Your task to perform on an android device: turn off priority inbox in the gmail app Image 0: 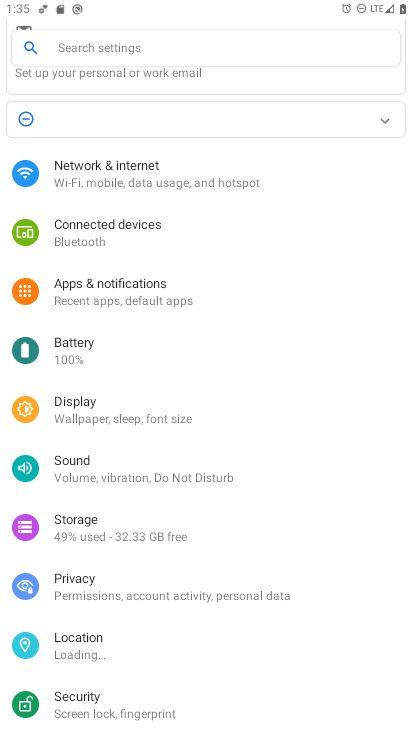
Step 0: press home button
Your task to perform on an android device: turn off priority inbox in the gmail app Image 1: 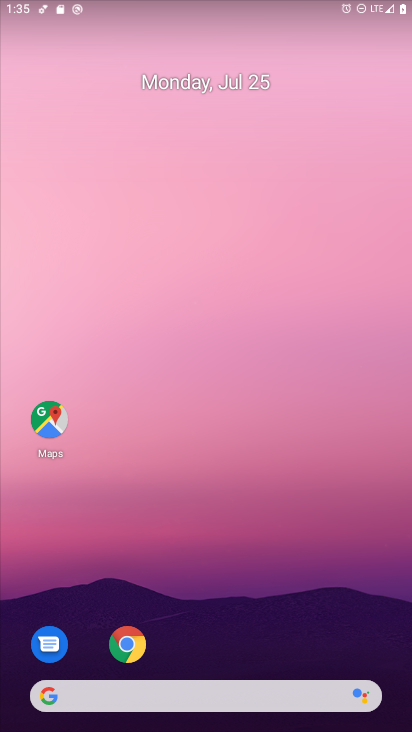
Step 1: drag from (241, 668) to (225, 10)
Your task to perform on an android device: turn off priority inbox in the gmail app Image 2: 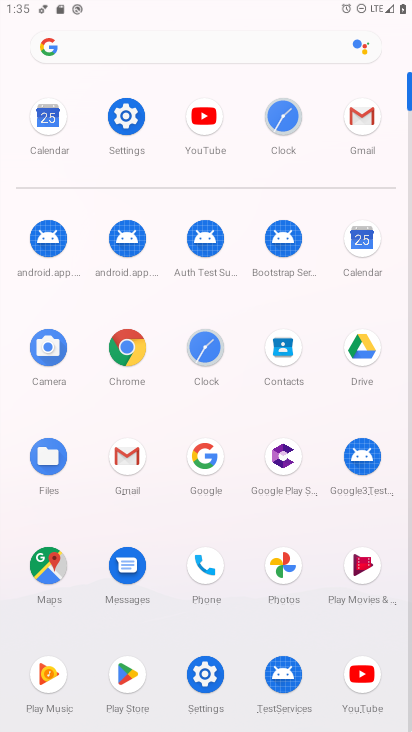
Step 2: click (122, 469)
Your task to perform on an android device: turn off priority inbox in the gmail app Image 3: 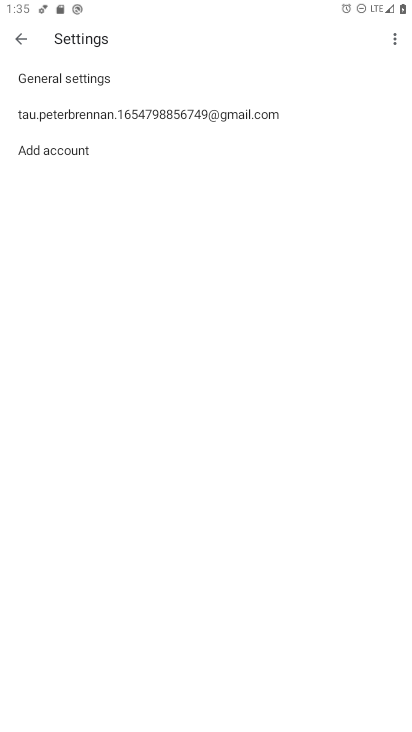
Step 3: click (49, 121)
Your task to perform on an android device: turn off priority inbox in the gmail app Image 4: 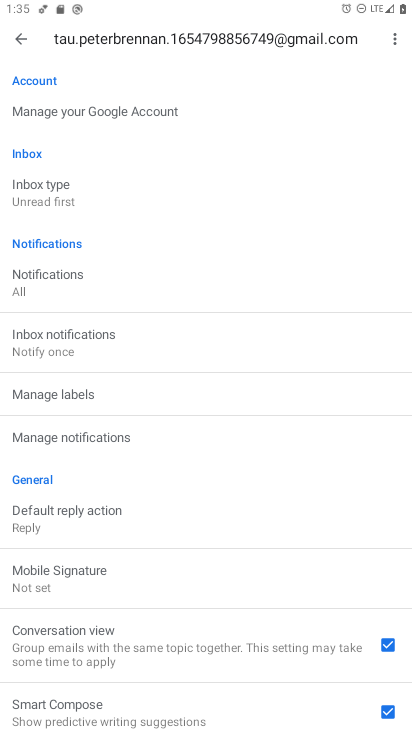
Step 4: click (37, 200)
Your task to perform on an android device: turn off priority inbox in the gmail app Image 5: 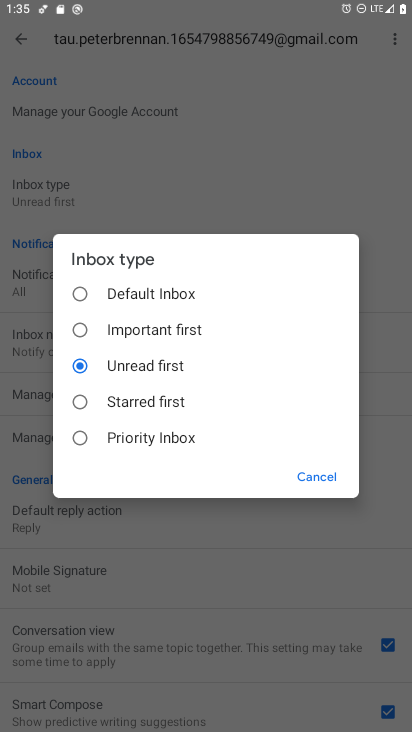
Step 5: click (116, 362)
Your task to perform on an android device: turn off priority inbox in the gmail app Image 6: 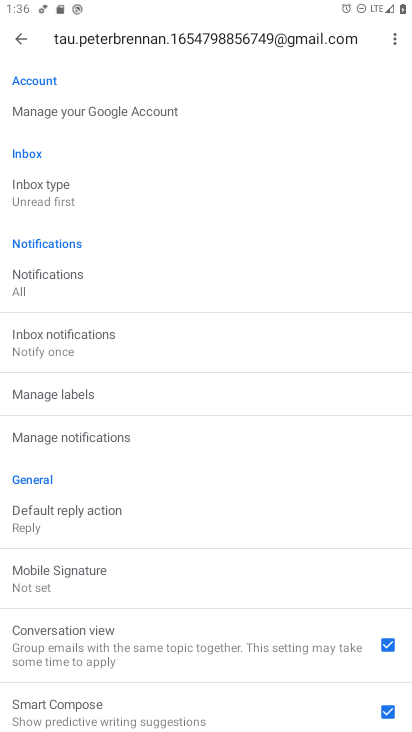
Step 6: task complete